Your task to perform on an android device: Open notification settings Image 0: 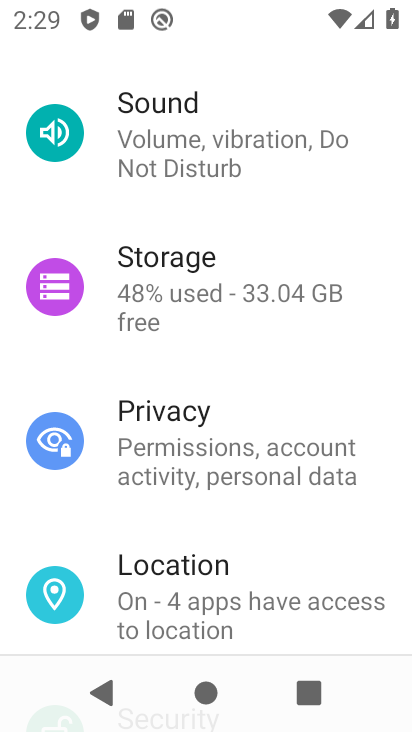
Step 0: press back button
Your task to perform on an android device: Open notification settings Image 1: 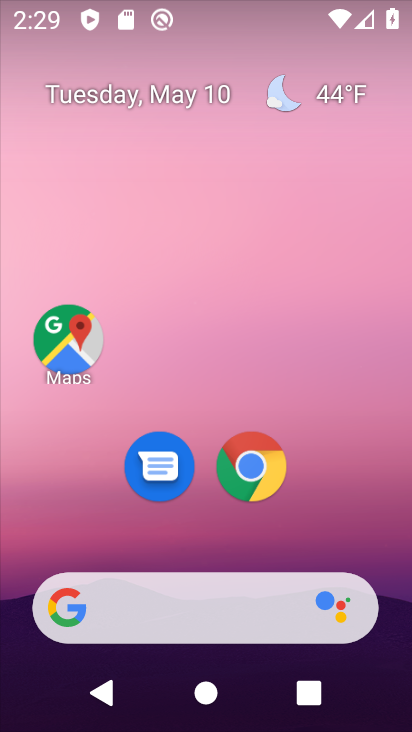
Step 1: drag from (305, 542) to (234, 2)
Your task to perform on an android device: Open notification settings Image 2: 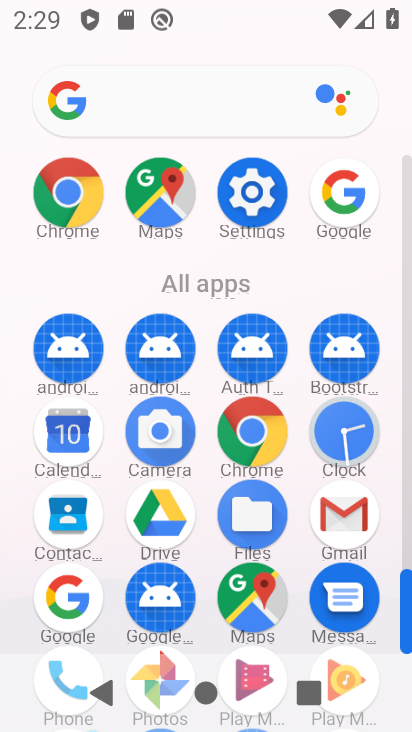
Step 2: click (254, 191)
Your task to perform on an android device: Open notification settings Image 3: 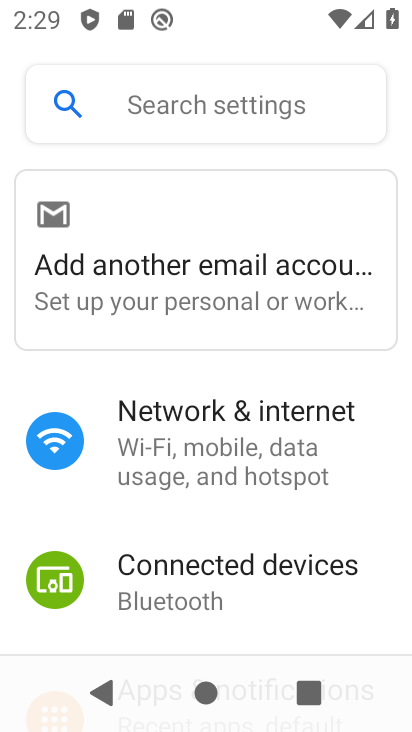
Step 3: drag from (187, 521) to (273, 348)
Your task to perform on an android device: Open notification settings Image 4: 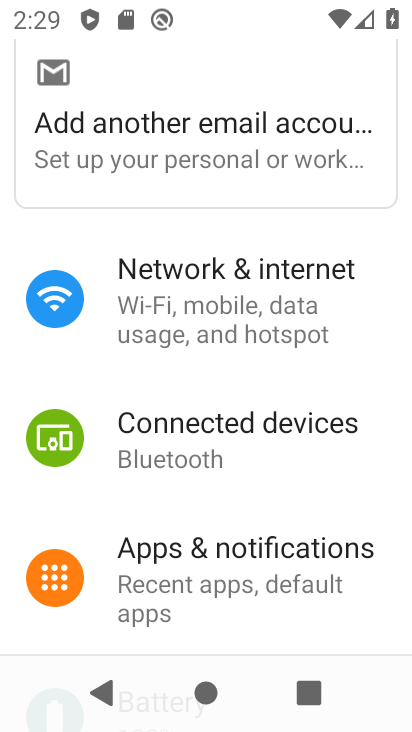
Step 4: drag from (219, 513) to (295, 319)
Your task to perform on an android device: Open notification settings Image 5: 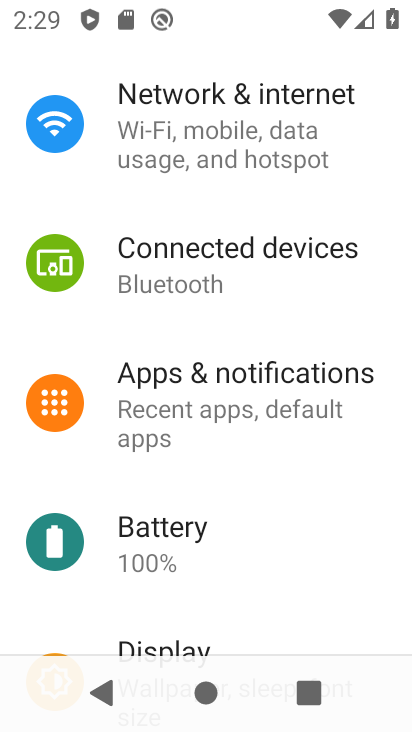
Step 5: click (258, 365)
Your task to perform on an android device: Open notification settings Image 6: 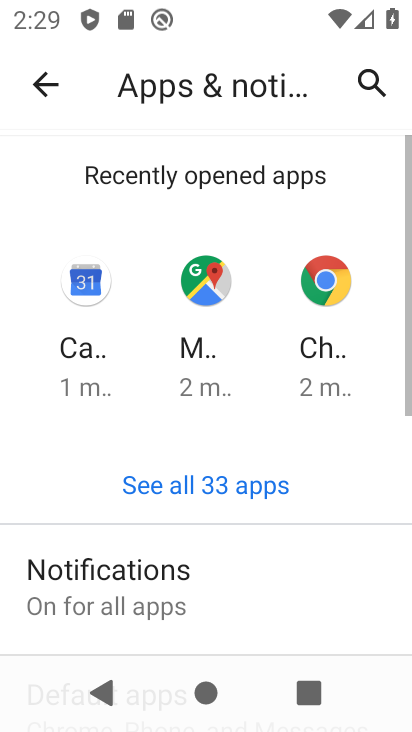
Step 6: drag from (176, 542) to (216, 270)
Your task to perform on an android device: Open notification settings Image 7: 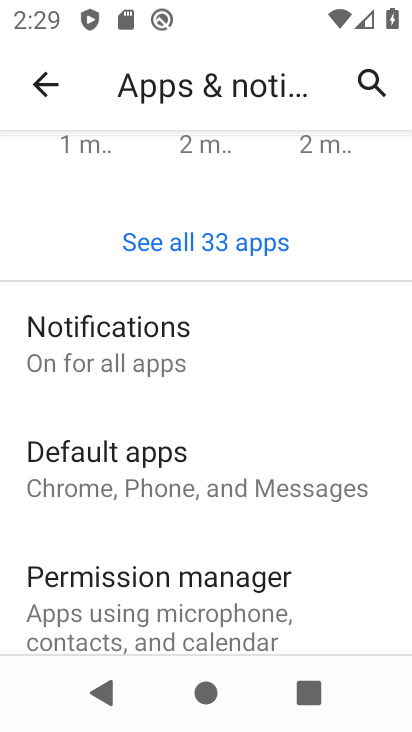
Step 7: click (119, 325)
Your task to perform on an android device: Open notification settings Image 8: 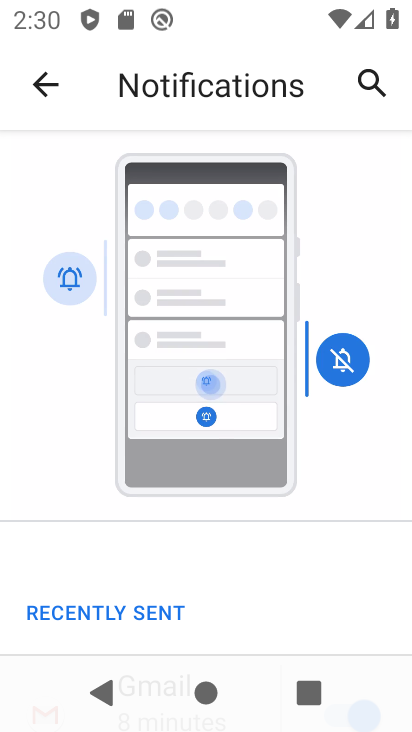
Step 8: drag from (211, 580) to (336, 337)
Your task to perform on an android device: Open notification settings Image 9: 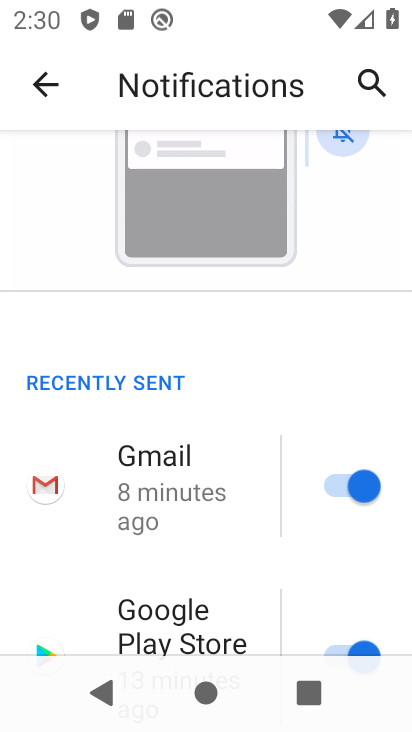
Step 9: drag from (242, 540) to (279, 358)
Your task to perform on an android device: Open notification settings Image 10: 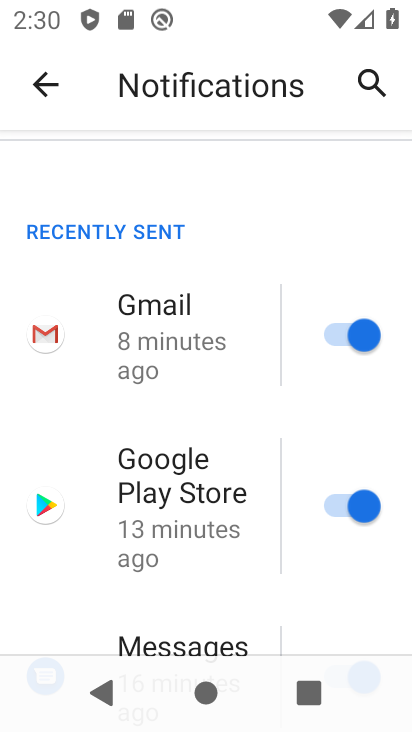
Step 10: drag from (183, 549) to (234, 353)
Your task to perform on an android device: Open notification settings Image 11: 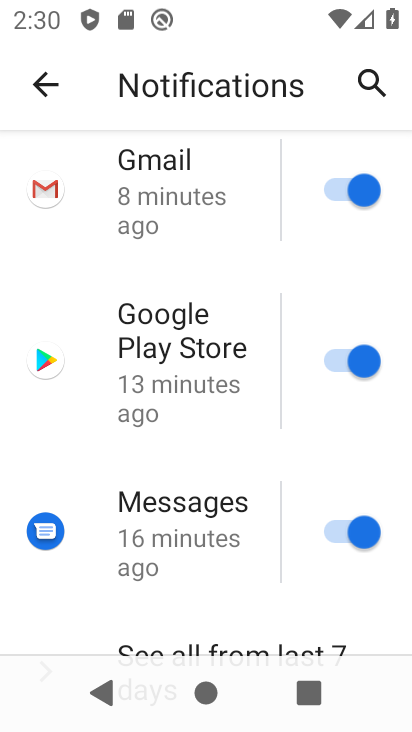
Step 11: drag from (166, 581) to (184, 280)
Your task to perform on an android device: Open notification settings Image 12: 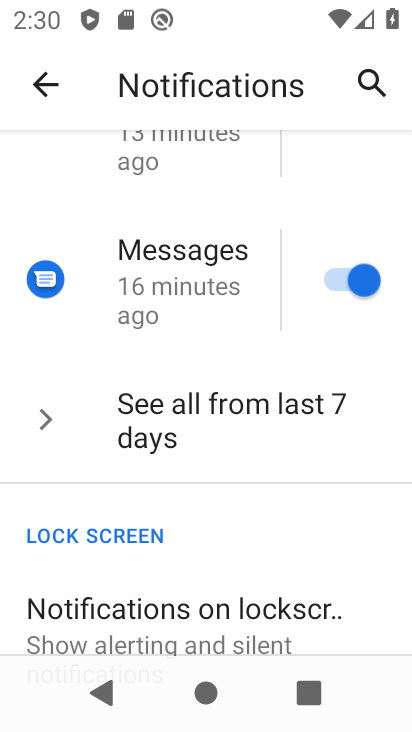
Step 12: drag from (137, 568) to (186, 291)
Your task to perform on an android device: Open notification settings Image 13: 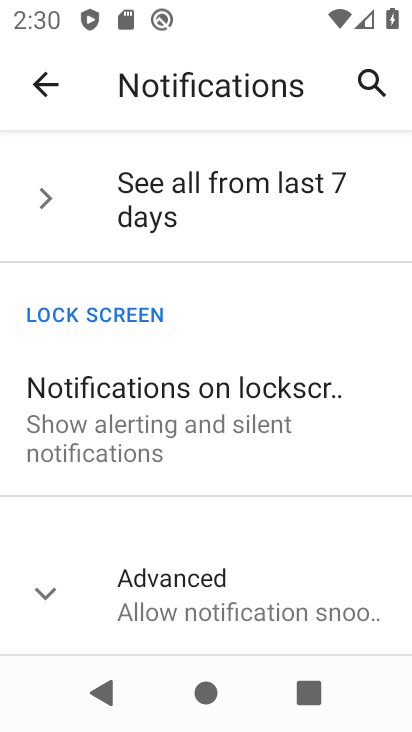
Step 13: press back button
Your task to perform on an android device: Open notification settings Image 14: 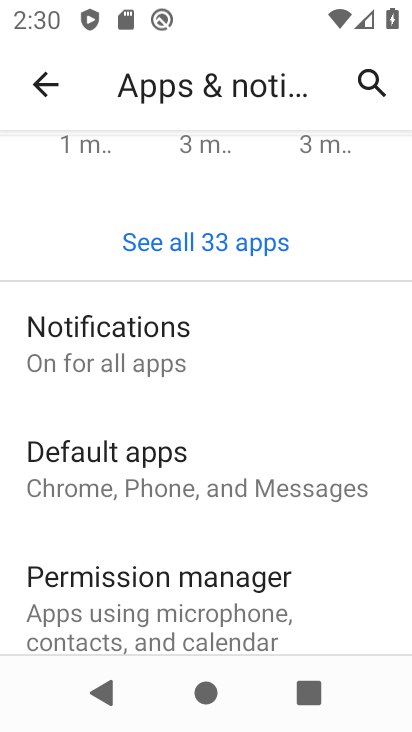
Step 14: click (129, 314)
Your task to perform on an android device: Open notification settings Image 15: 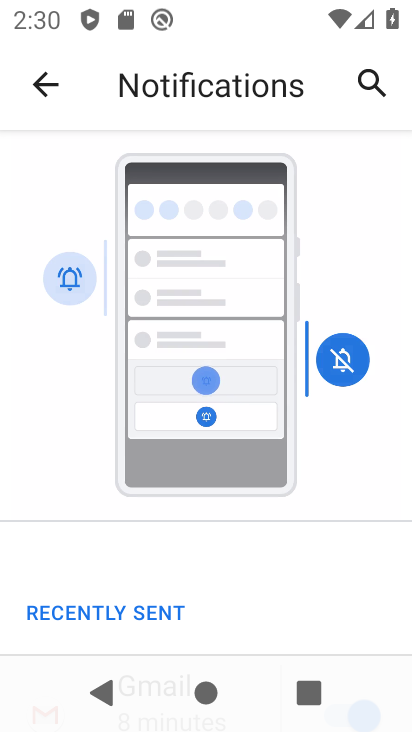
Step 15: task complete